Your task to perform on an android device: What is the recent news? Image 0: 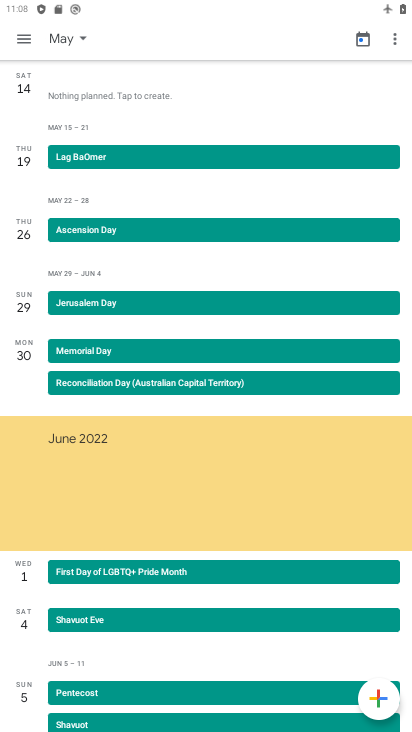
Step 0: press home button
Your task to perform on an android device: What is the recent news? Image 1: 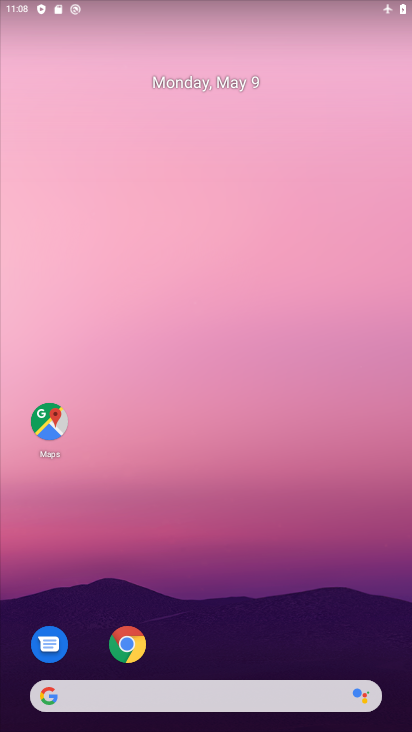
Step 1: drag from (230, 638) to (219, 171)
Your task to perform on an android device: What is the recent news? Image 2: 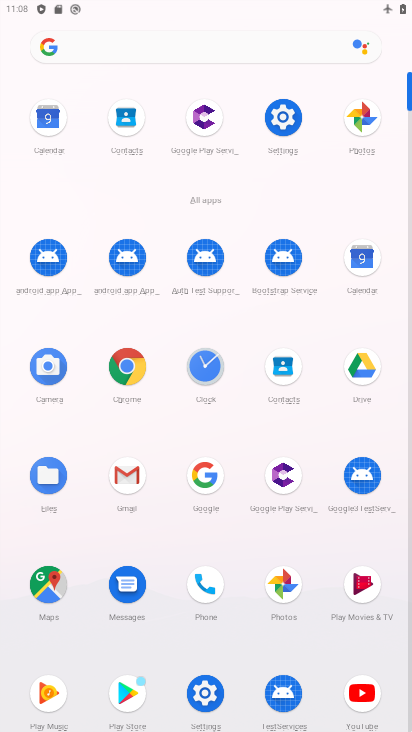
Step 2: click (189, 473)
Your task to perform on an android device: What is the recent news? Image 3: 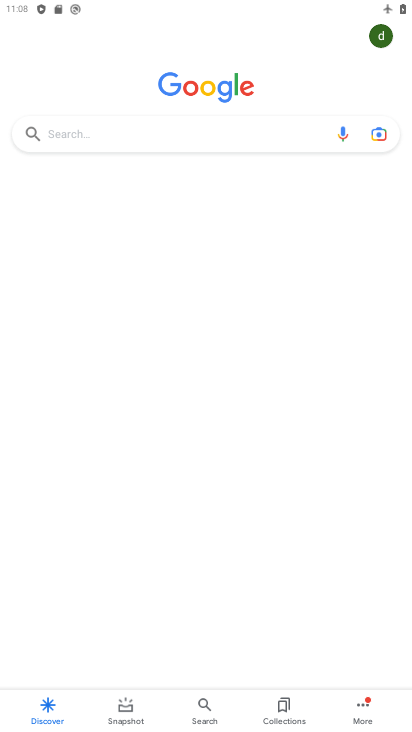
Step 3: click (151, 139)
Your task to perform on an android device: What is the recent news? Image 4: 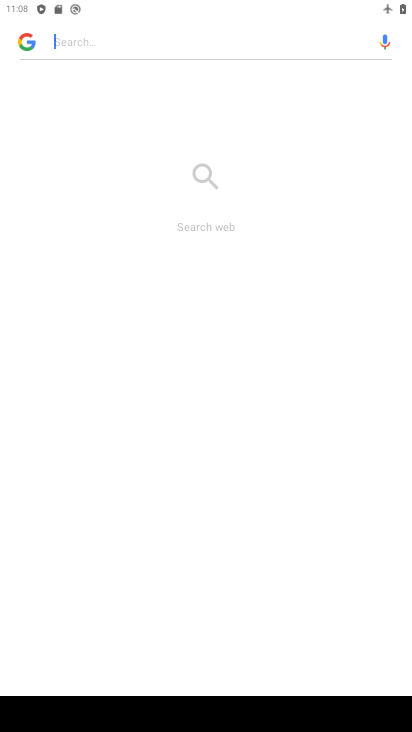
Step 4: type "recent news"
Your task to perform on an android device: What is the recent news? Image 5: 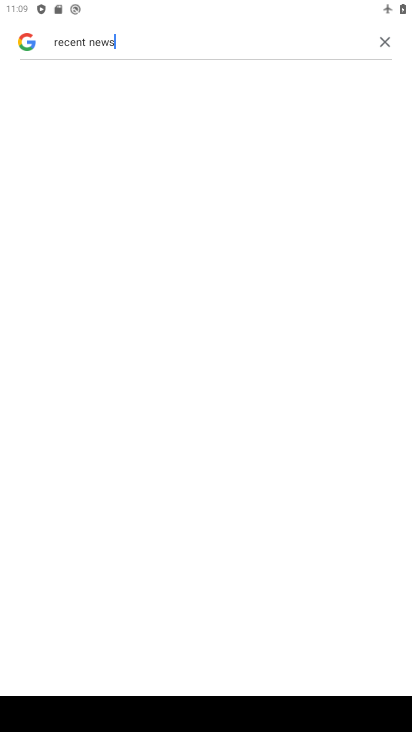
Step 5: task complete